Your task to perform on an android device: open app "TextNow: Call + Text Unlimited" (install if not already installed), go to login, and select forgot password Image 0: 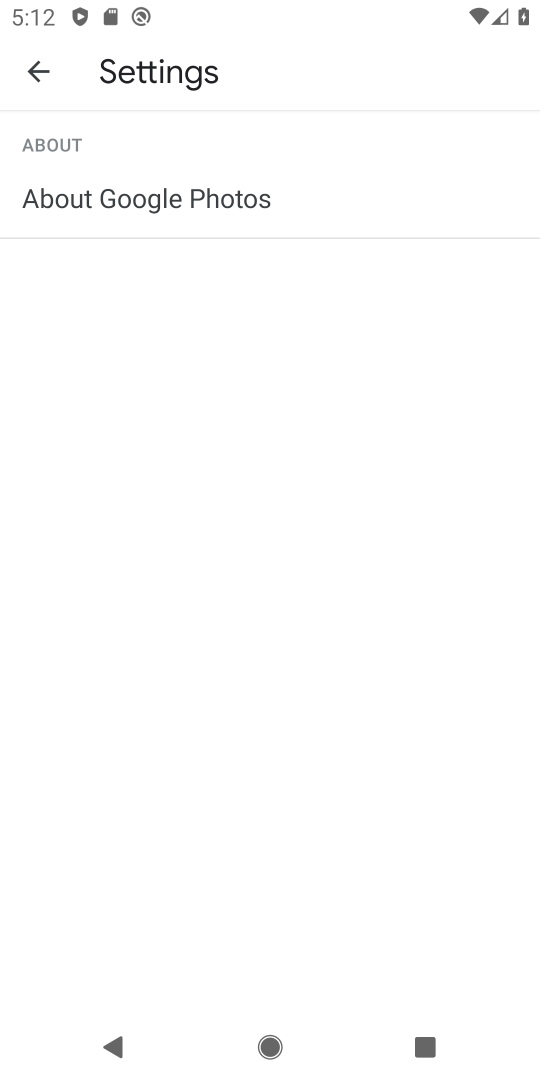
Step 0: press home button
Your task to perform on an android device: open app "TextNow: Call + Text Unlimited" (install if not already installed), go to login, and select forgot password Image 1: 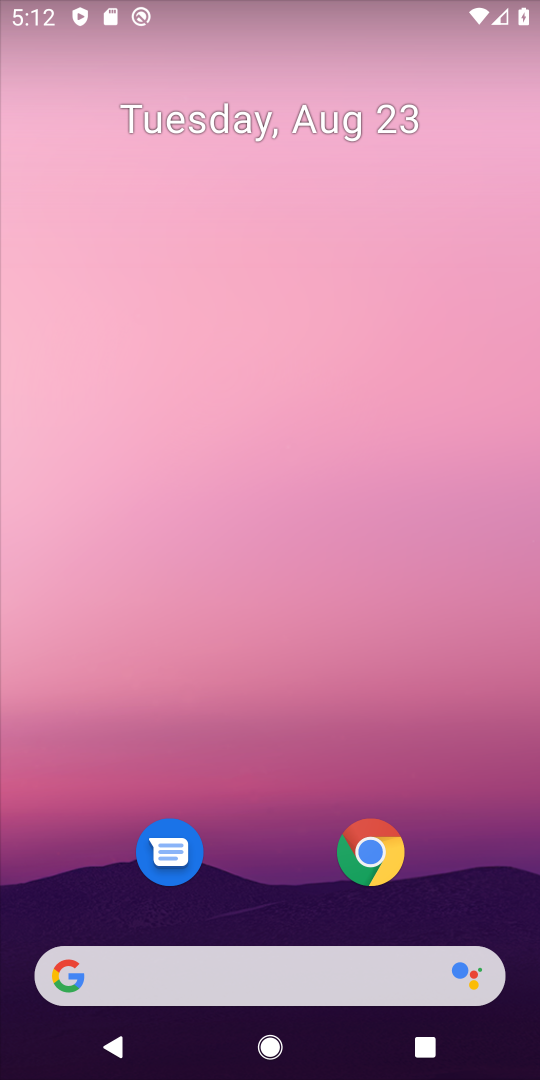
Step 1: drag from (189, 980) to (297, 26)
Your task to perform on an android device: open app "TextNow: Call + Text Unlimited" (install if not already installed), go to login, and select forgot password Image 2: 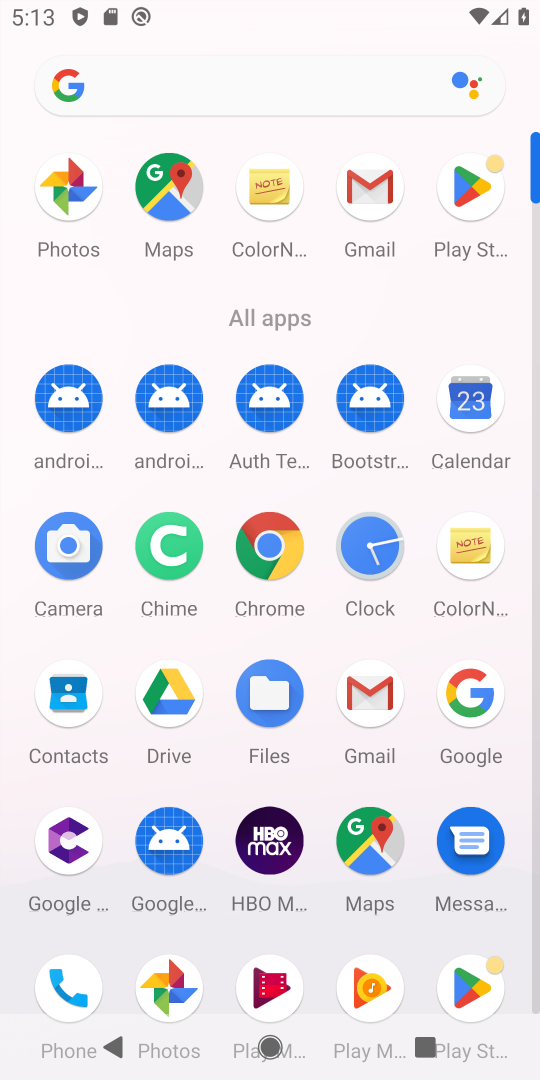
Step 2: click (475, 190)
Your task to perform on an android device: open app "TextNow: Call + Text Unlimited" (install if not already installed), go to login, and select forgot password Image 3: 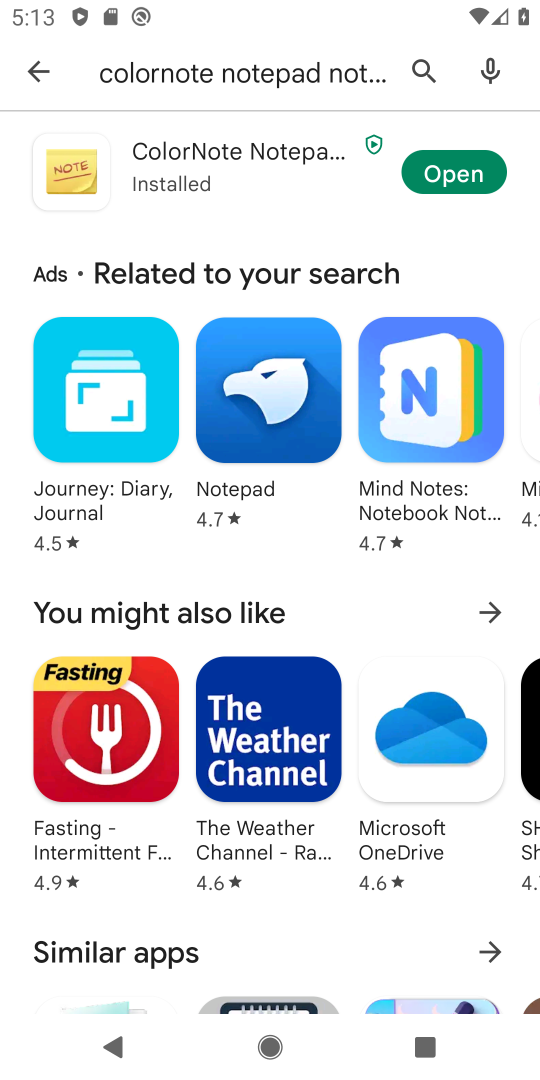
Step 3: press back button
Your task to perform on an android device: open app "TextNow: Call + Text Unlimited" (install if not already installed), go to login, and select forgot password Image 4: 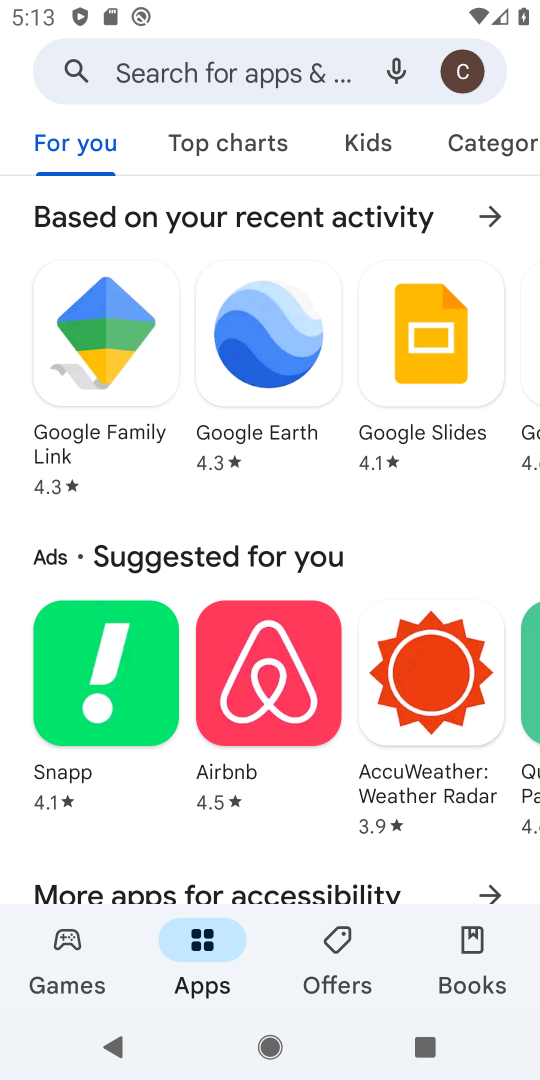
Step 4: click (290, 89)
Your task to perform on an android device: open app "TextNow: Call + Text Unlimited" (install if not already installed), go to login, and select forgot password Image 5: 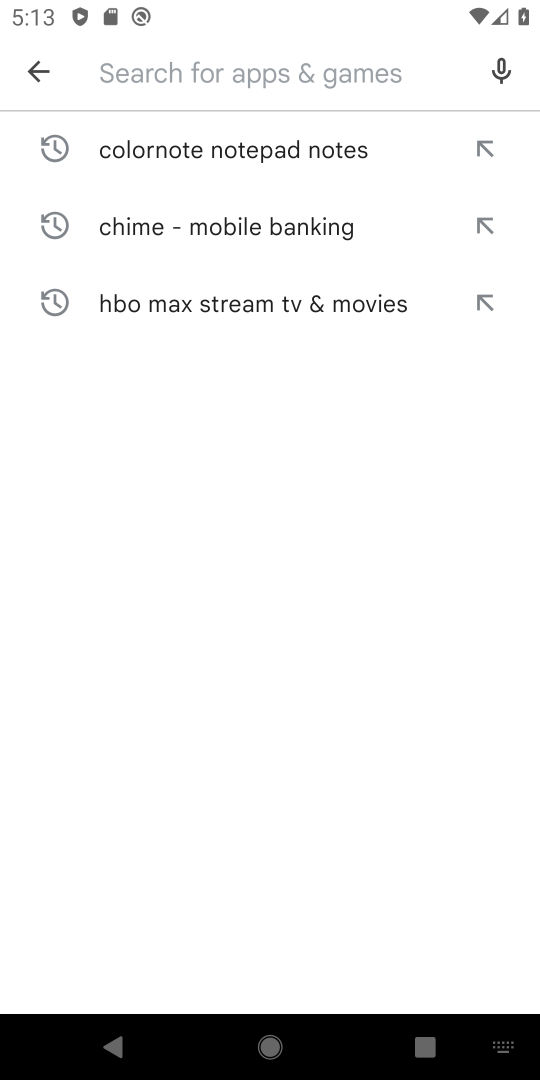
Step 5: type "Text: Call + Text Unlimited"
Your task to perform on an android device: open app "TextNow: Call + Text Unlimited" (install if not already installed), go to login, and select forgot password Image 6: 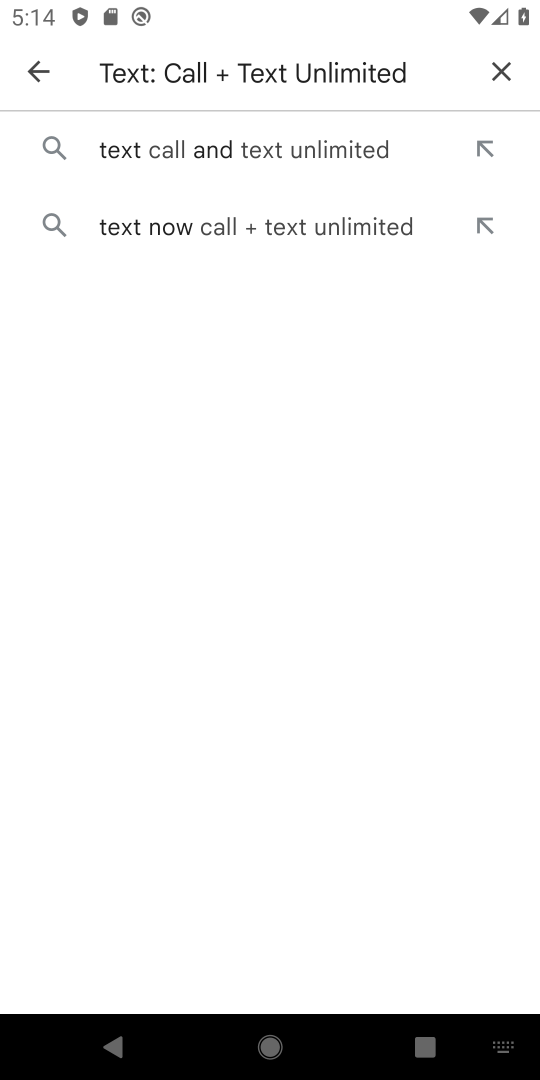
Step 6: click (223, 153)
Your task to perform on an android device: open app "TextNow: Call + Text Unlimited" (install if not already installed), go to login, and select forgot password Image 7: 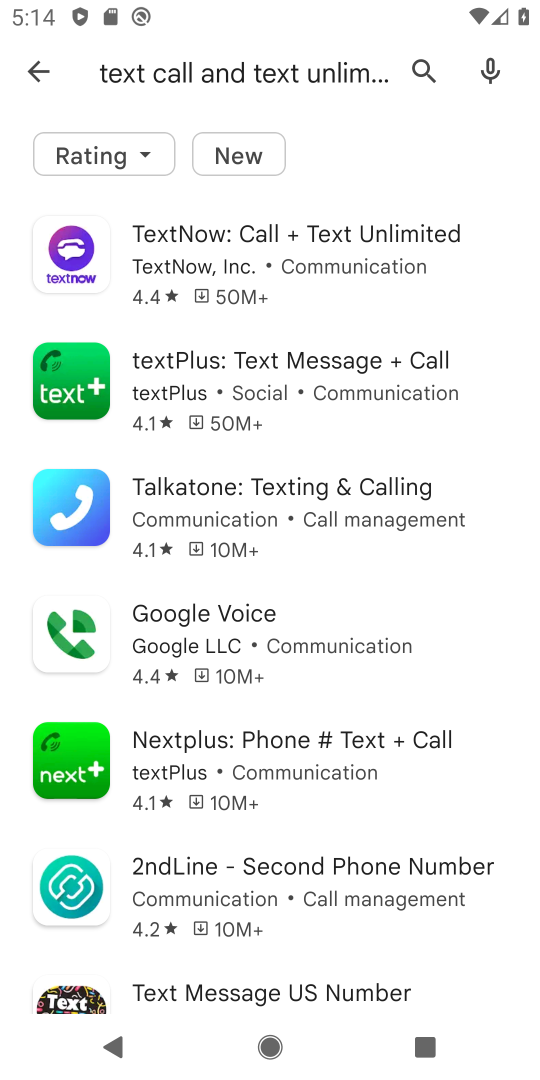
Step 7: click (249, 243)
Your task to perform on an android device: open app "TextNow: Call + Text Unlimited" (install if not already installed), go to login, and select forgot password Image 8: 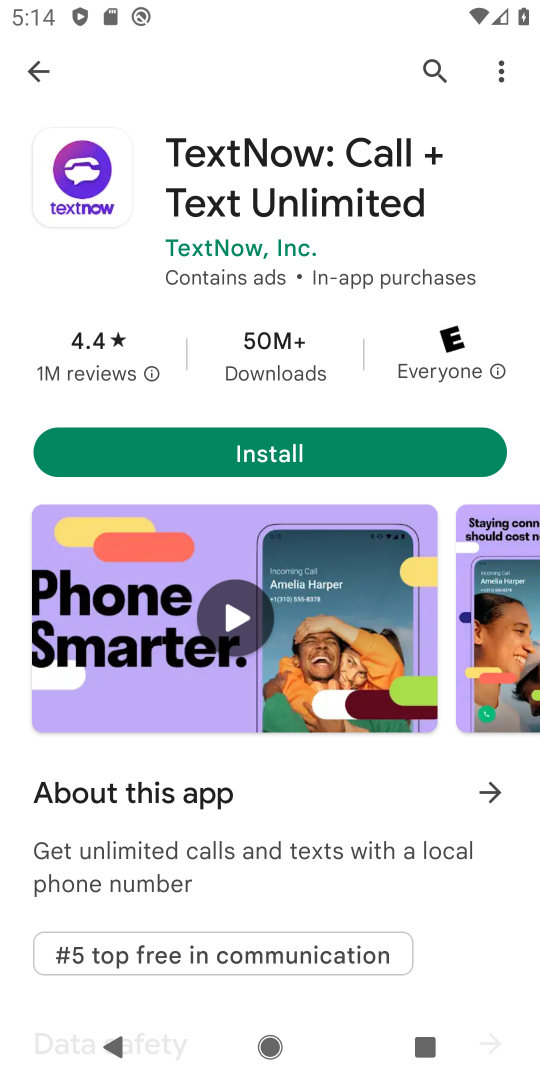
Step 8: click (283, 444)
Your task to perform on an android device: open app "TextNow: Call + Text Unlimited" (install if not already installed), go to login, and select forgot password Image 9: 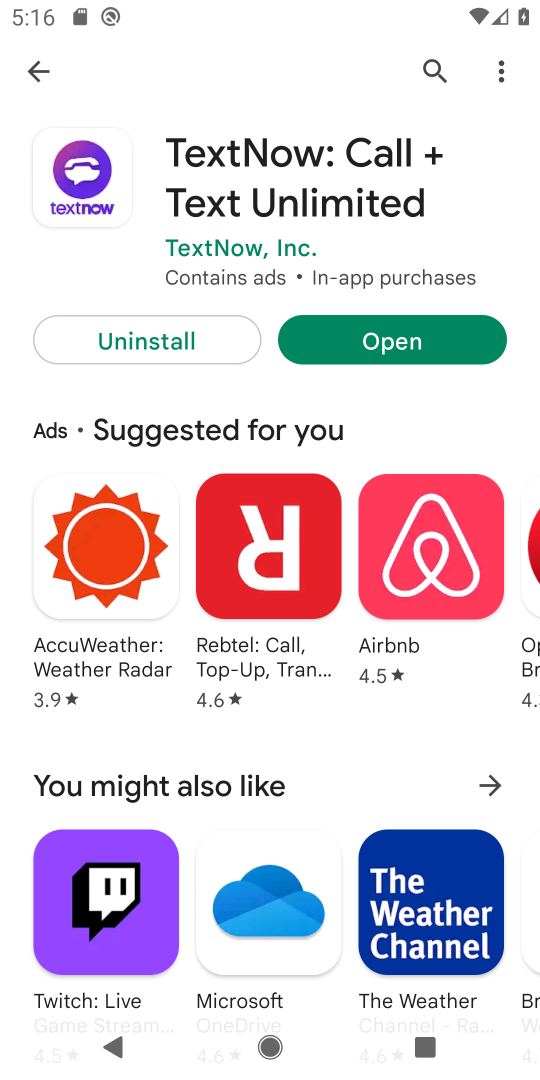
Step 9: click (358, 340)
Your task to perform on an android device: open app "TextNow: Call + Text Unlimited" (install if not already installed), go to login, and select forgot password Image 10: 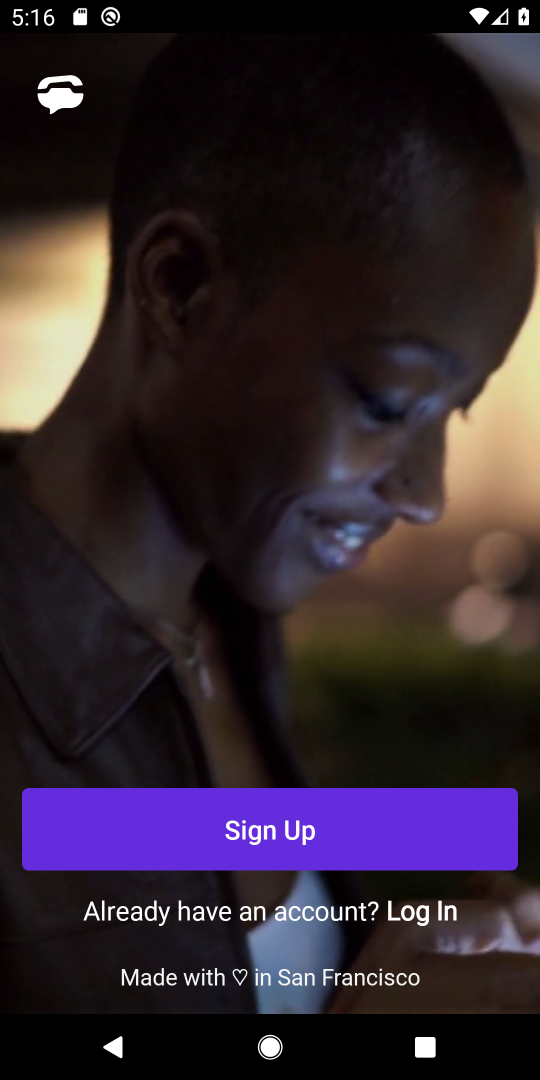
Step 10: click (418, 914)
Your task to perform on an android device: open app "TextNow: Call + Text Unlimited" (install if not already installed), go to login, and select forgot password Image 11: 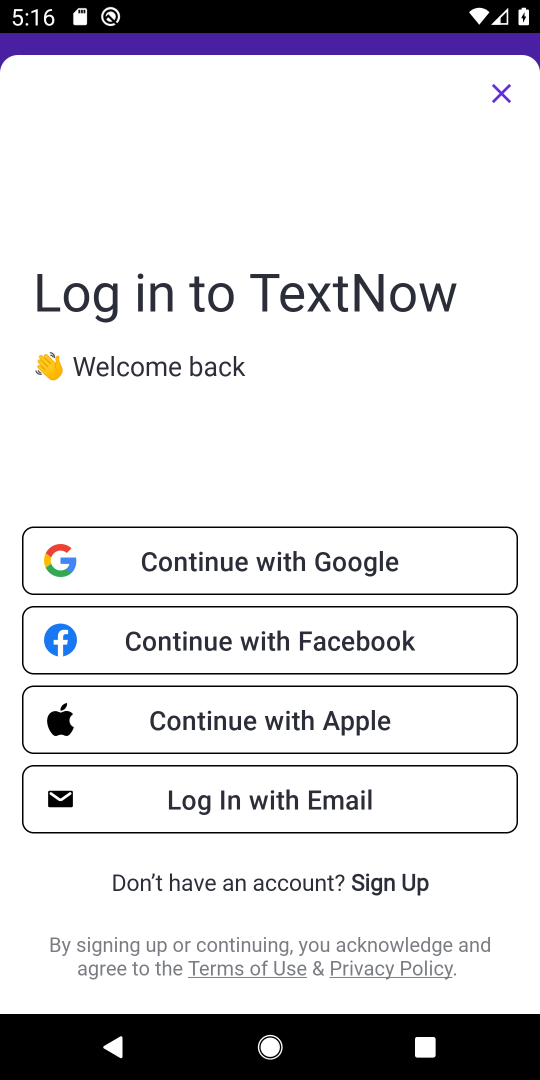
Step 11: click (295, 793)
Your task to perform on an android device: open app "TextNow: Call + Text Unlimited" (install if not already installed), go to login, and select forgot password Image 12: 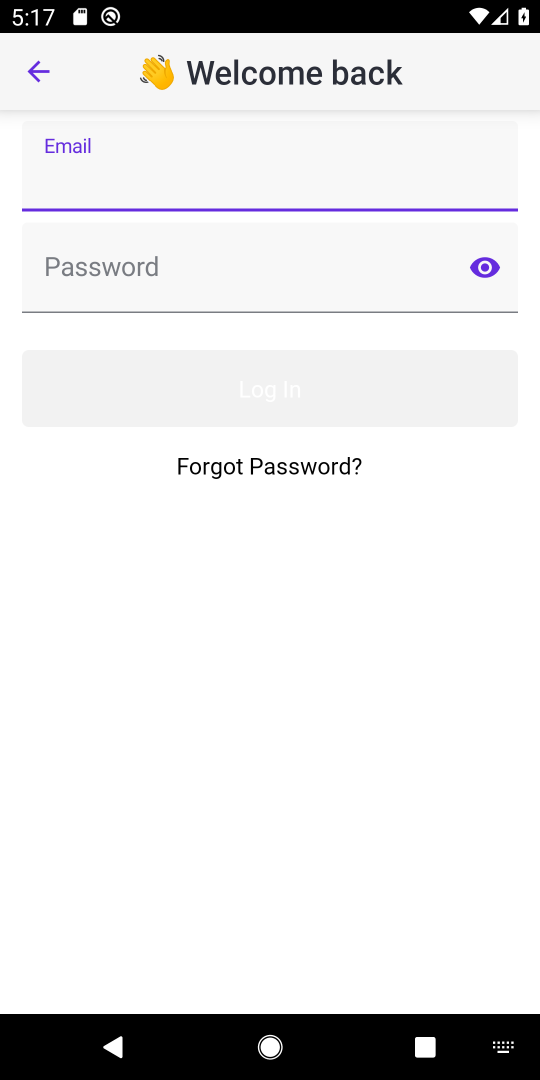
Step 12: click (245, 471)
Your task to perform on an android device: open app "TextNow: Call + Text Unlimited" (install if not already installed), go to login, and select forgot password Image 13: 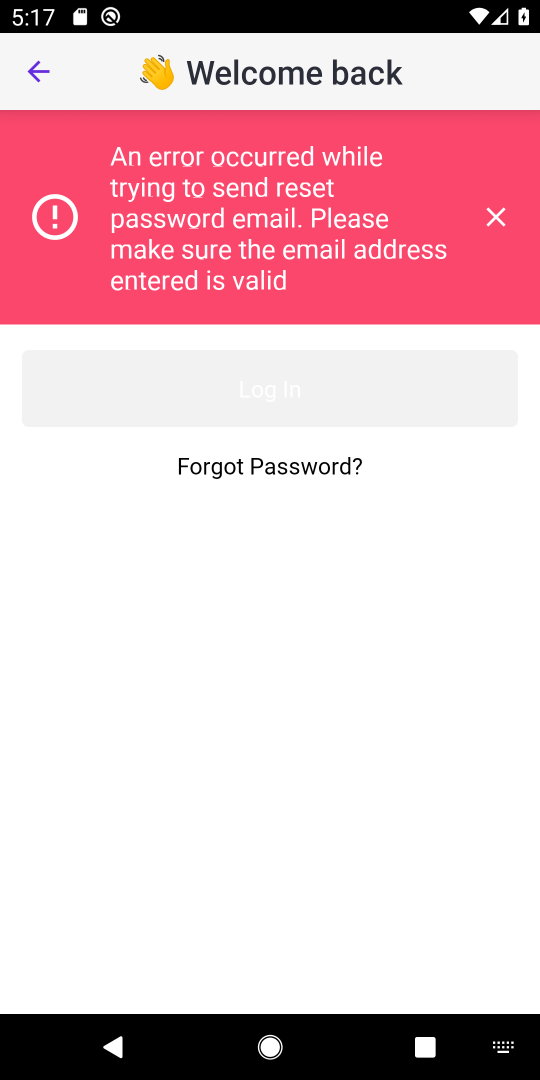
Step 13: task complete